Your task to perform on an android device: Go to Google Image 0: 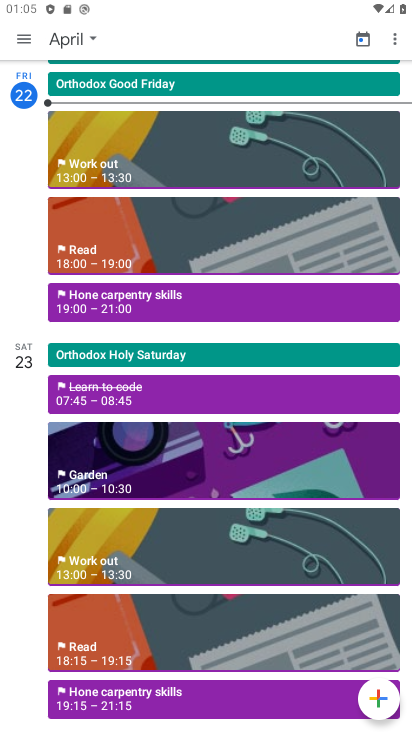
Step 0: press home button
Your task to perform on an android device: Go to Google Image 1: 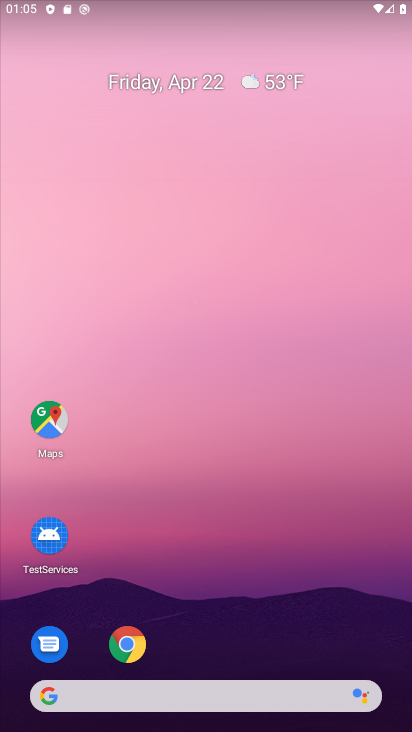
Step 1: drag from (313, 626) to (315, 128)
Your task to perform on an android device: Go to Google Image 2: 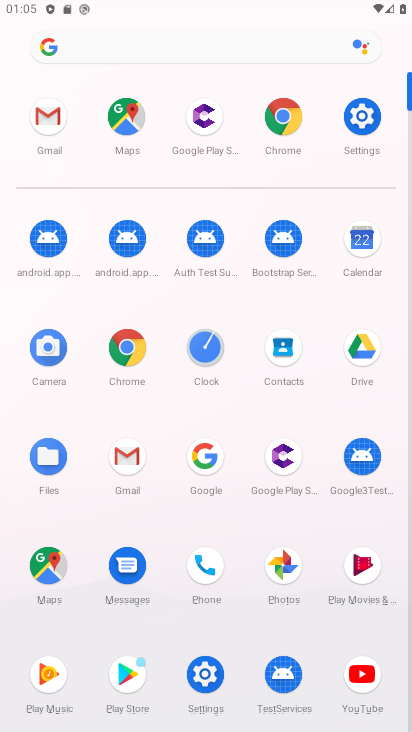
Step 2: click (199, 452)
Your task to perform on an android device: Go to Google Image 3: 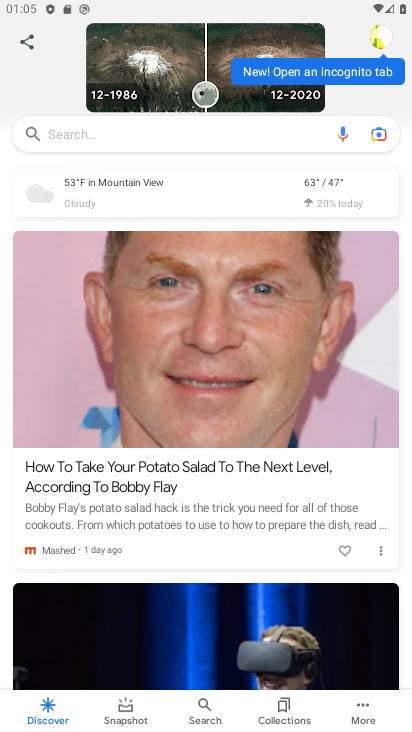
Step 3: task complete